Your task to perform on an android device: install app "Upside-Cash back on gas & food" Image 0: 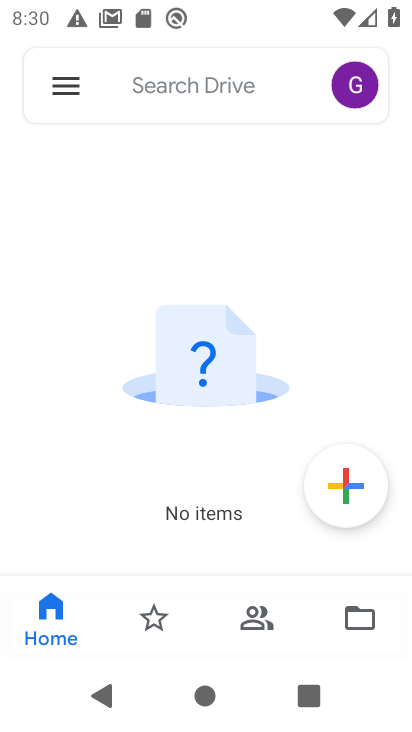
Step 0: press home button
Your task to perform on an android device: install app "Upside-Cash back on gas & food" Image 1: 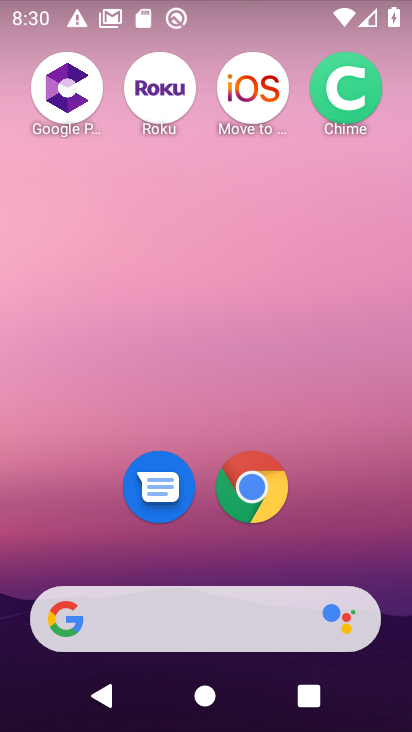
Step 1: drag from (185, 490) to (149, 3)
Your task to perform on an android device: install app "Upside-Cash back on gas & food" Image 2: 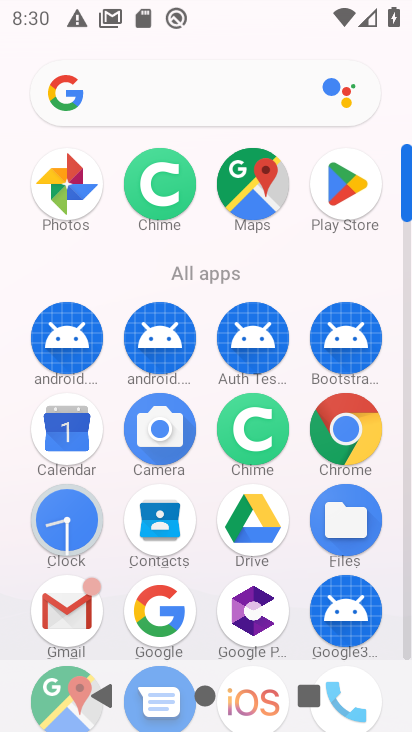
Step 2: click (336, 175)
Your task to perform on an android device: install app "Upside-Cash back on gas & food" Image 3: 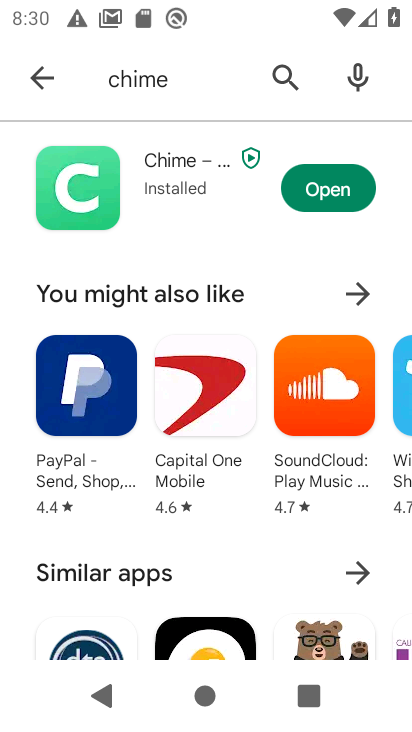
Step 3: click (34, 71)
Your task to perform on an android device: install app "Upside-Cash back on gas & food" Image 4: 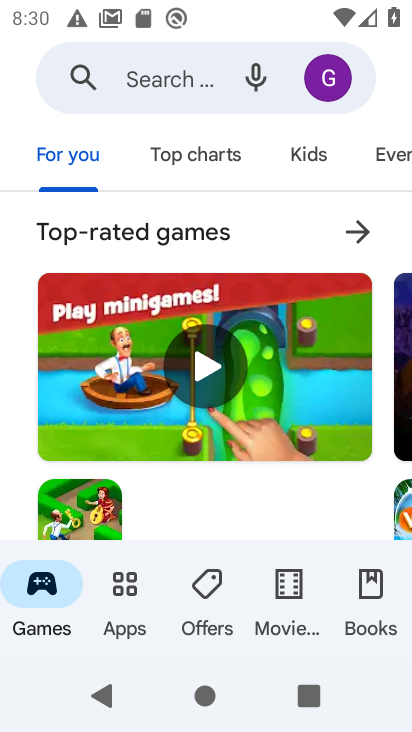
Step 4: click (172, 72)
Your task to perform on an android device: install app "Upside-Cash back on gas & food" Image 5: 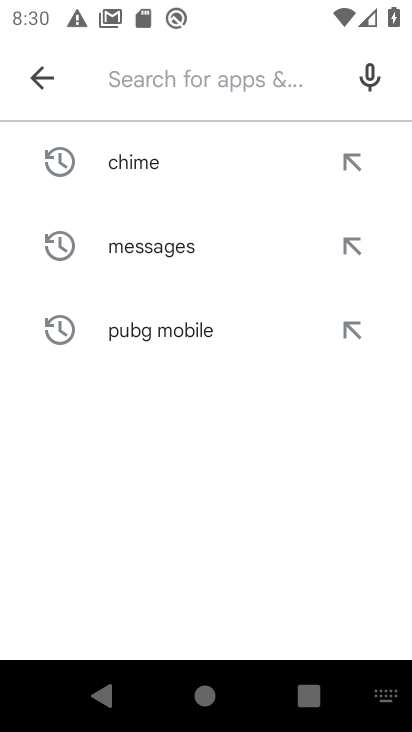
Step 5: type "Upside-Cash back on gas & food"
Your task to perform on an android device: install app "Upside-Cash back on gas & food" Image 6: 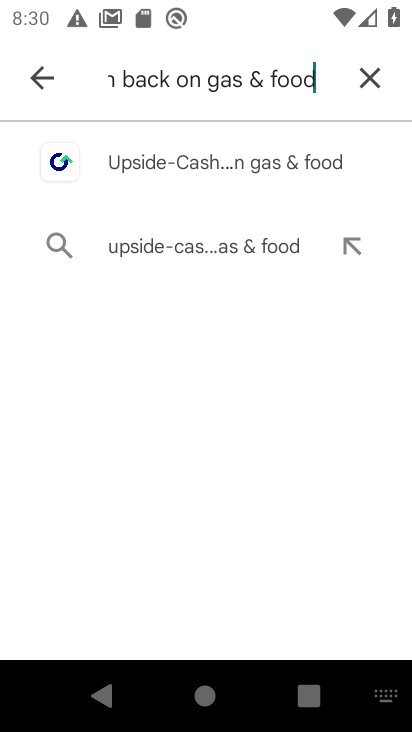
Step 6: click (277, 164)
Your task to perform on an android device: install app "Upside-Cash back on gas & food" Image 7: 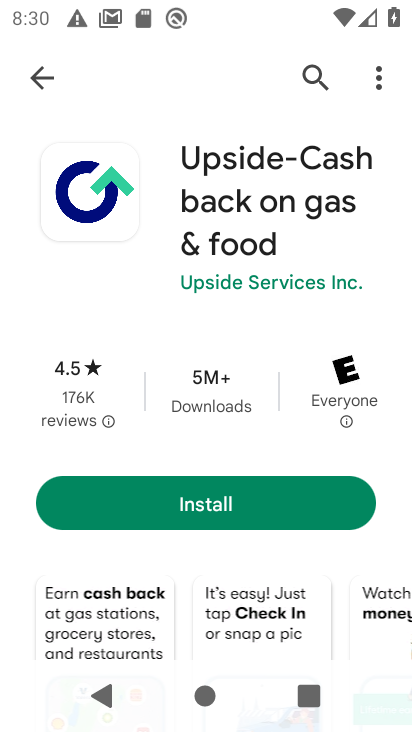
Step 7: click (207, 503)
Your task to perform on an android device: install app "Upside-Cash back on gas & food" Image 8: 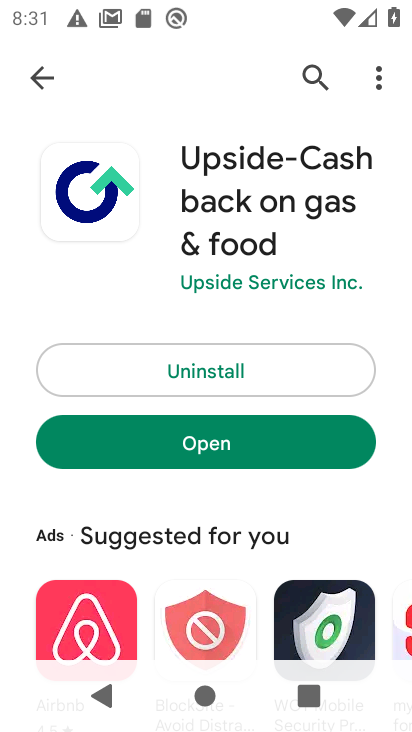
Step 8: click (182, 442)
Your task to perform on an android device: install app "Upside-Cash back on gas & food" Image 9: 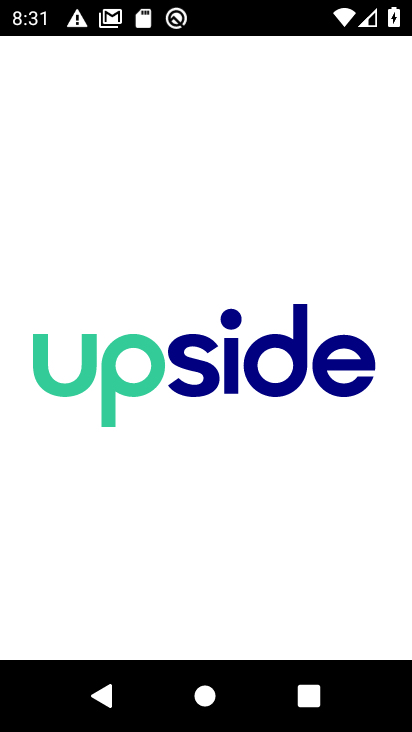
Step 9: task complete